Your task to perform on an android device: change notifications settings Image 0: 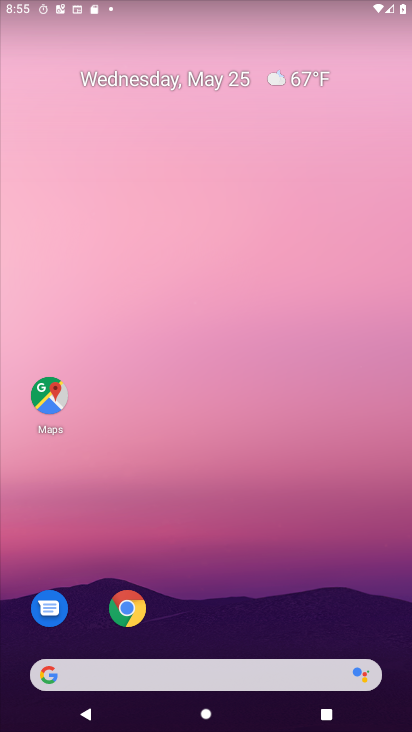
Step 0: drag from (231, 729) to (231, 42)
Your task to perform on an android device: change notifications settings Image 1: 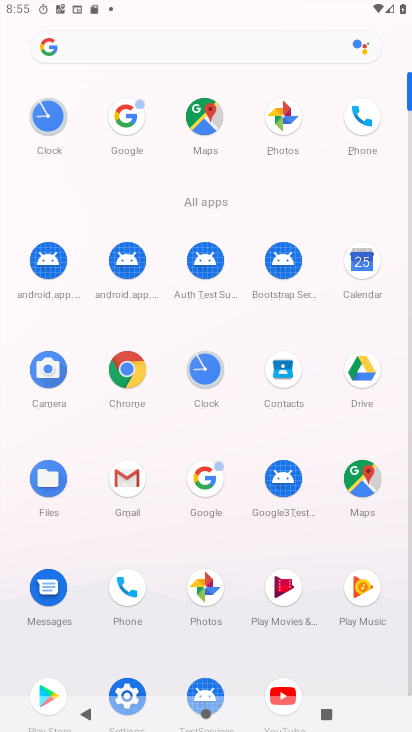
Step 1: click (124, 687)
Your task to perform on an android device: change notifications settings Image 2: 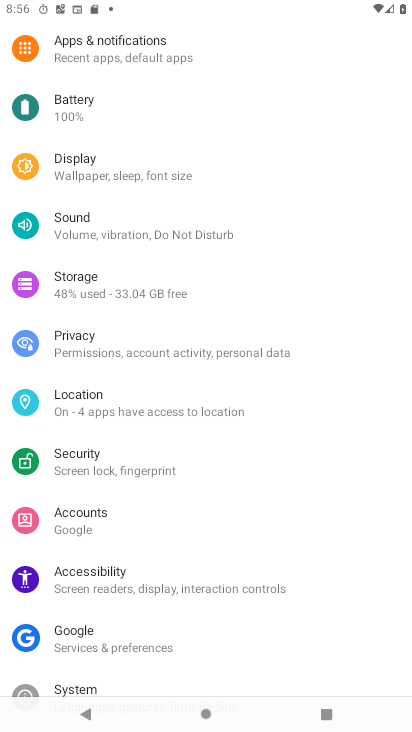
Step 2: drag from (170, 185) to (143, 520)
Your task to perform on an android device: change notifications settings Image 3: 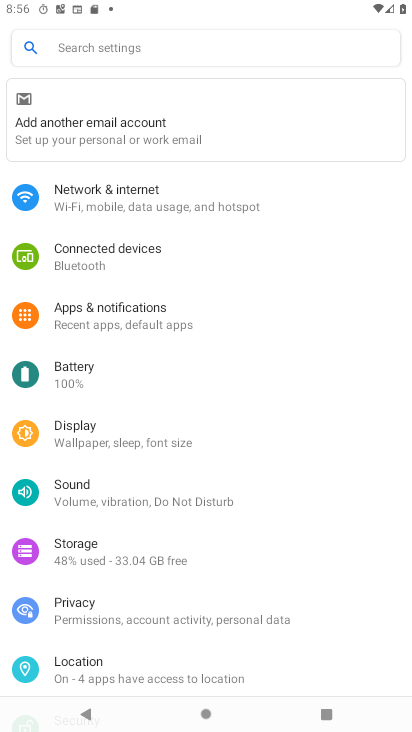
Step 3: click (111, 319)
Your task to perform on an android device: change notifications settings Image 4: 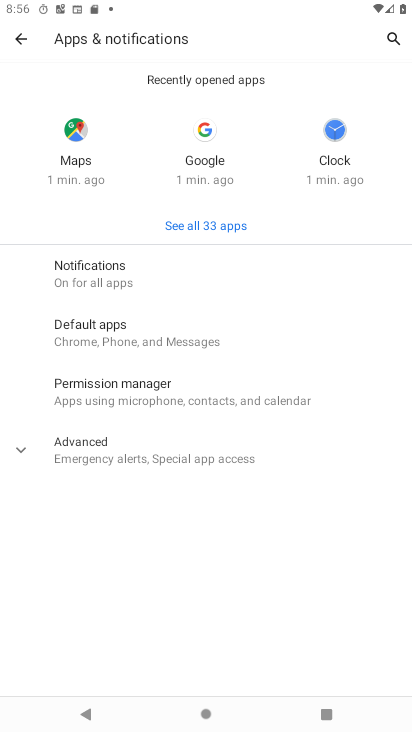
Step 4: click (90, 269)
Your task to perform on an android device: change notifications settings Image 5: 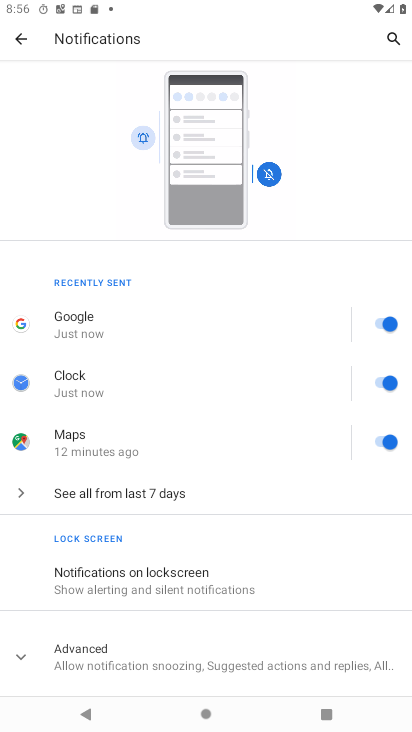
Step 5: click (75, 653)
Your task to perform on an android device: change notifications settings Image 6: 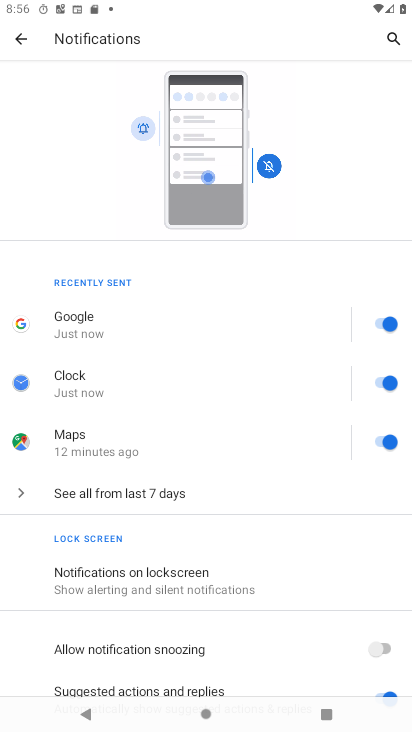
Step 6: click (384, 648)
Your task to perform on an android device: change notifications settings Image 7: 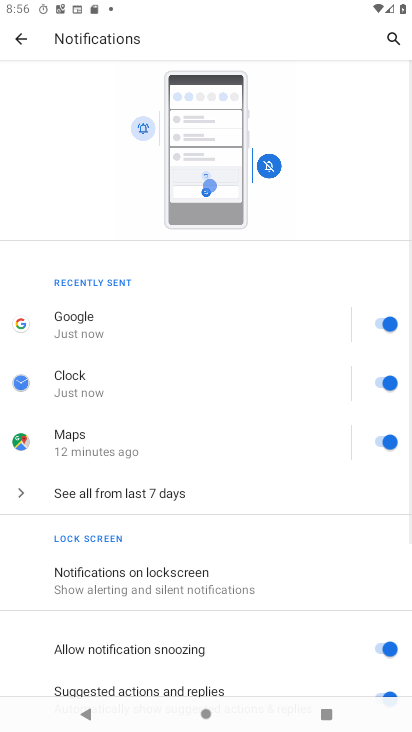
Step 7: task complete